Your task to perform on an android device: Open Youtube and go to "Your channel" Image 0: 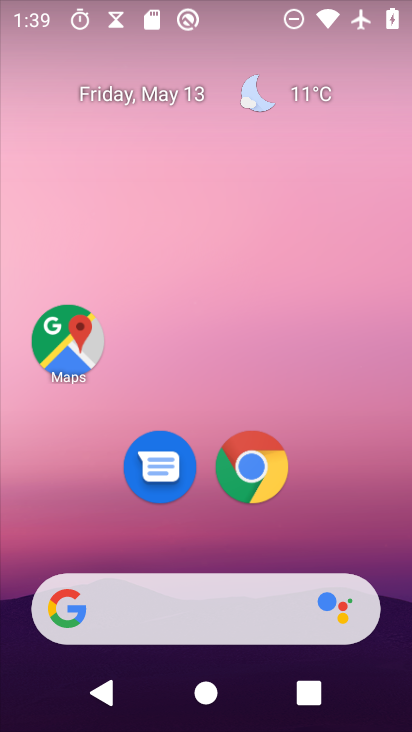
Step 0: drag from (312, 534) to (173, 116)
Your task to perform on an android device: Open Youtube and go to "Your channel" Image 1: 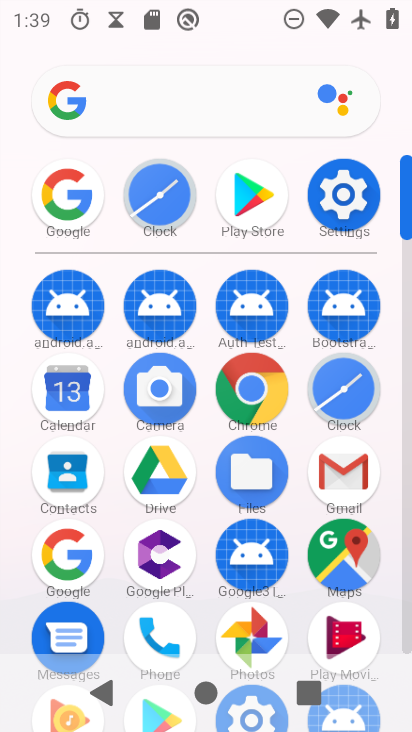
Step 1: drag from (202, 621) to (179, 136)
Your task to perform on an android device: Open Youtube and go to "Your channel" Image 2: 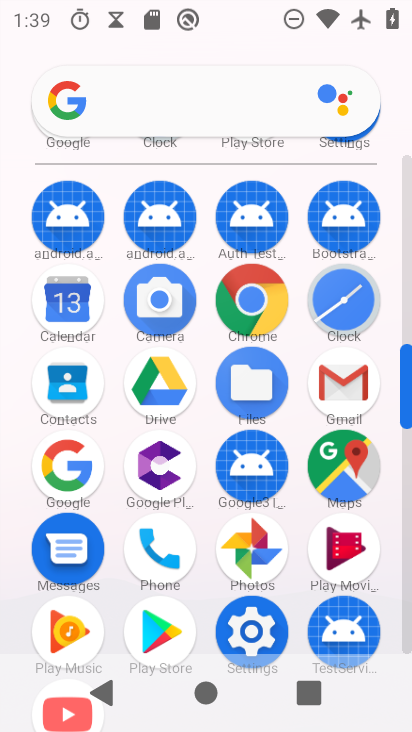
Step 2: drag from (200, 618) to (164, 256)
Your task to perform on an android device: Open Youtube and go to "Your channel" Image 3: 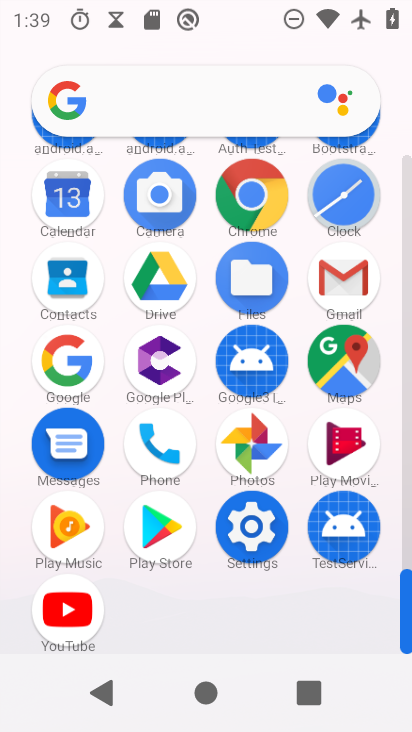
Step 3: click (81, 611)
Your task to perform on an android device: Open Youtube and go to "Your channel" Image 4: 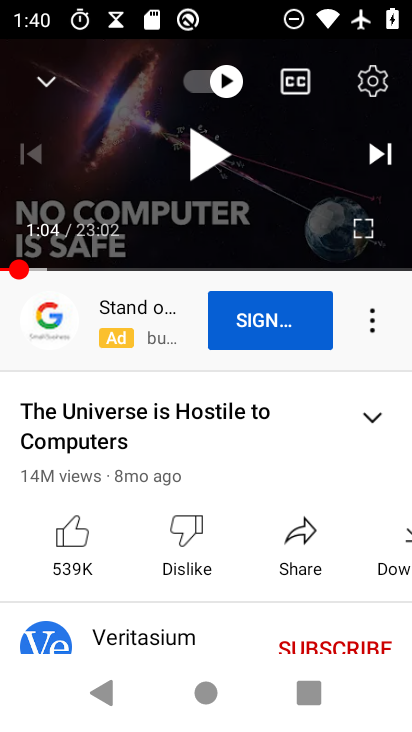
Step 4: click (100, 691)
Your task to perform on an android device: Open Youtube and go to "Your channel" Image 5: 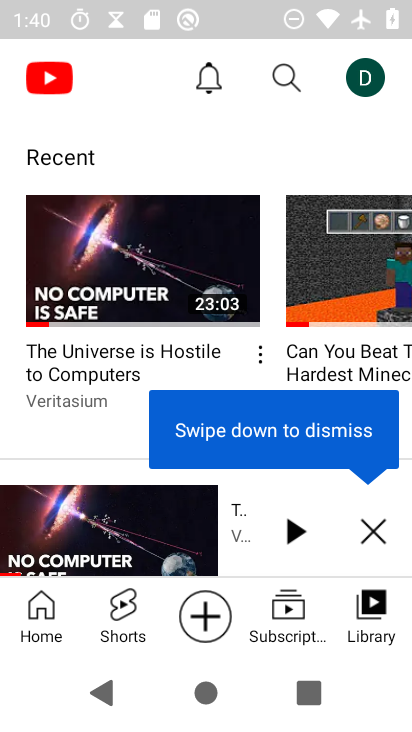
Step 5: click (360, 71)
Your task to perform on an android device: Open Youtube and go to "Your channel" Image 6: 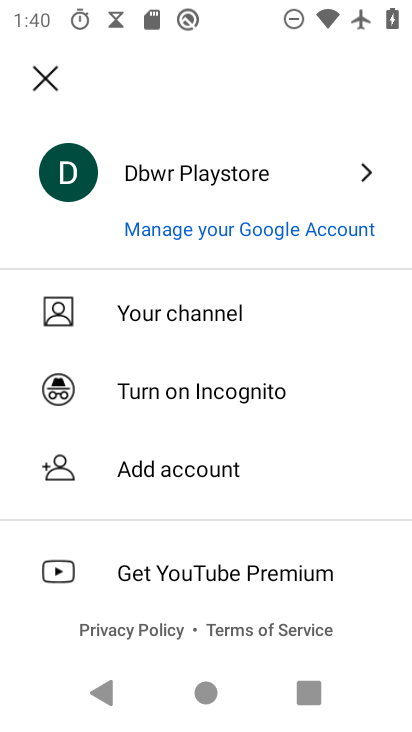
Step 6: click (185, 316)
Your task to perform on an android device: Open Youtube and go to "Your channel" Image 7: 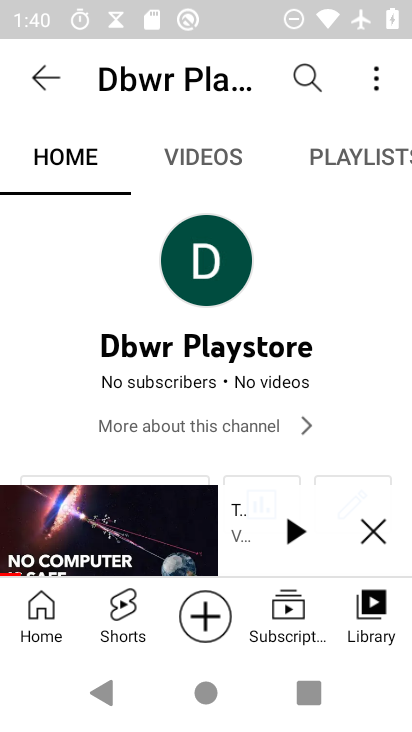
Step 7: task complete